Your task to perform on an android device: open a new tab in the chrome app Image 0: 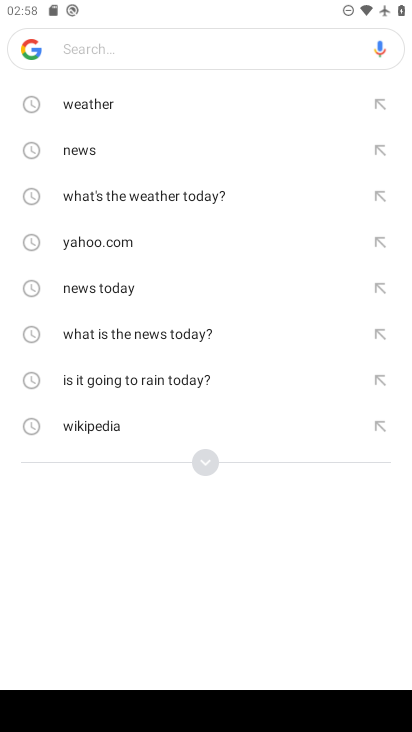
Step 0: press home button
Your task to perform on an android device: open a new tab in the chrome app Image 1: 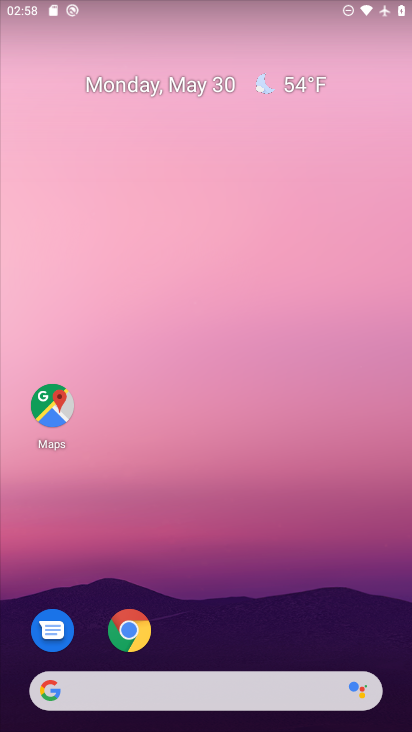
Step 1: click (124, 634)
Your task to perform on an android device: open a new tab in the chrome app Image 2: 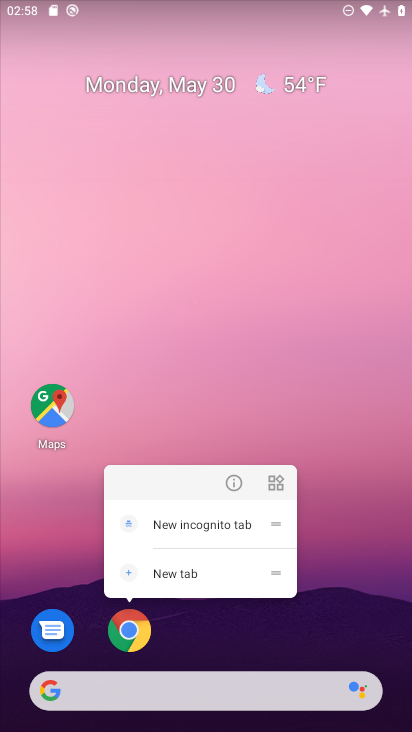
Step 2: click (136, 629)
Your task to perform on an android device: open a new tab in the chrome app Image 3: 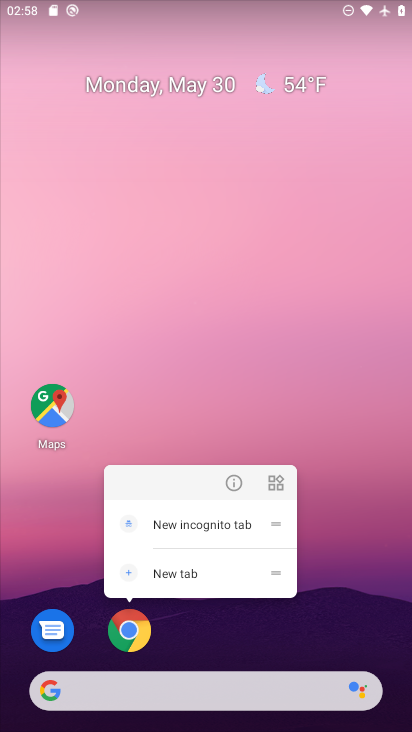
Step 3: click (124, 643)
Your task to perform on an android device: open a new tab in the chrome app Image 4: 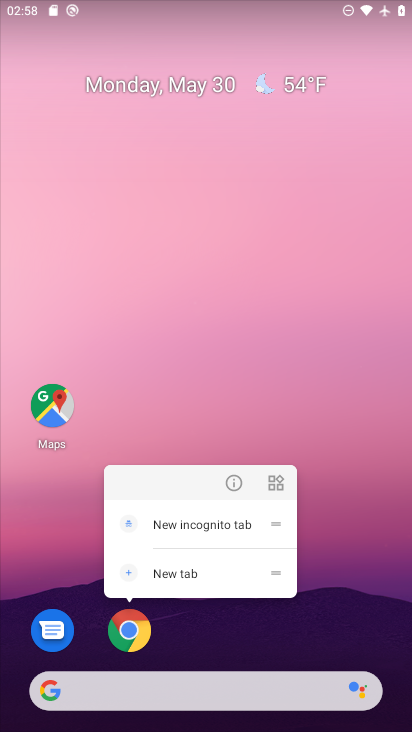
Step 4: click (127, 636)
Your task to perform on an android device: open a new tab in the chrome app Image 5: 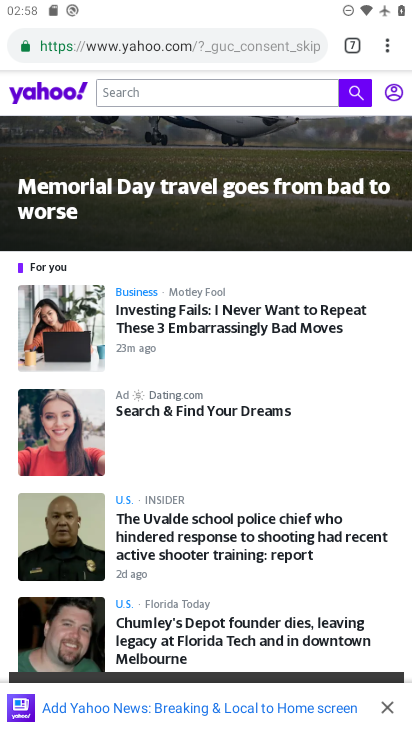
Step 5: task complete